Your task to perform on an android device: search for starred emails in the gmail app Image 0: 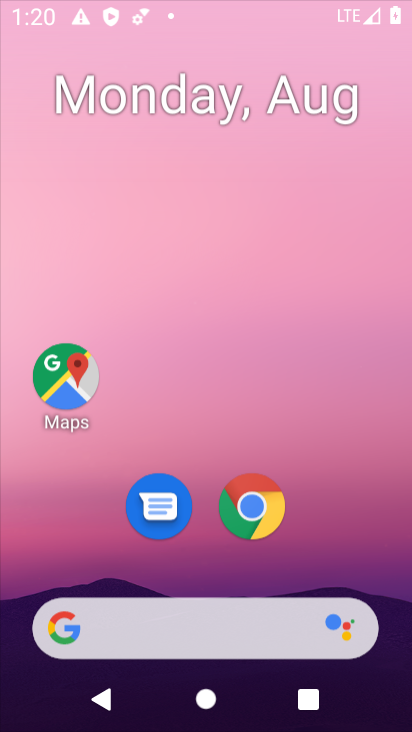
Step 0: press home button
Your task to perform on an android device: search for starred emails in the gmail app Image 1: 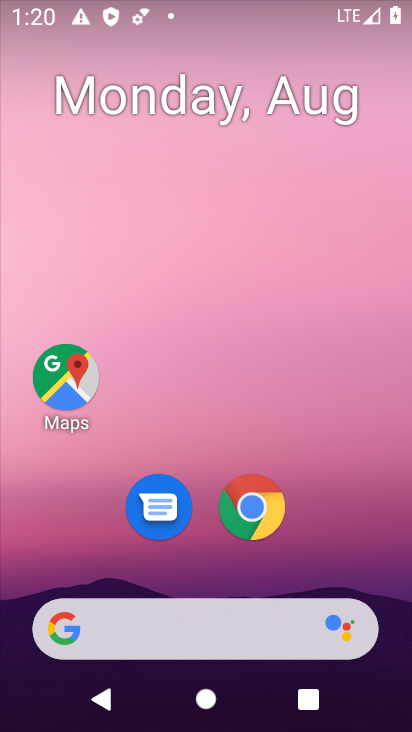
Step 1: click (255, 113)
Your task to perform on an android device: search for starred emails in the gmail app Image 2: 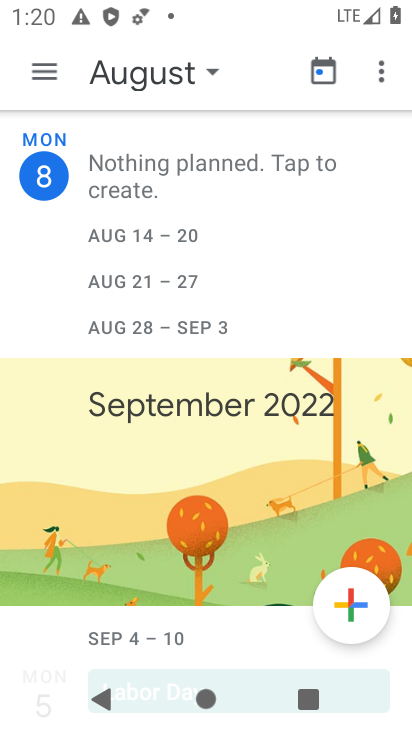
Step 2: press home button
Your task to perform on an android device: search for starred emails in the gmail app Image 3: 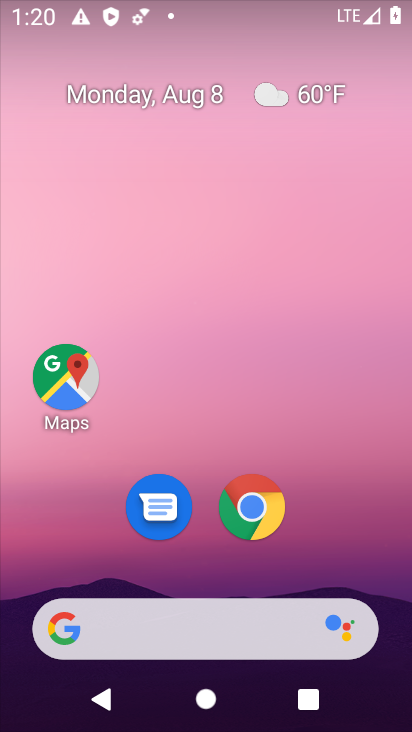
Step 3: drag from (209, 566) to (245, 125)
Your task to perform on an android device: search for starred emails in the gmail app Image 4: 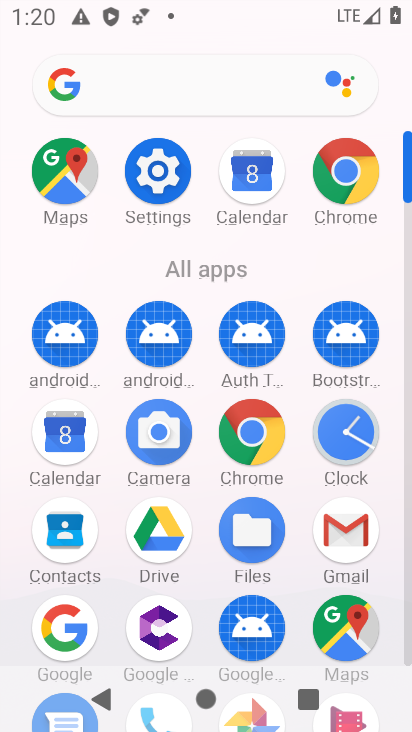
Step 4: click (343, 521)
Your task to perform on an android device: search for starred emails in the gmail app Image 5: 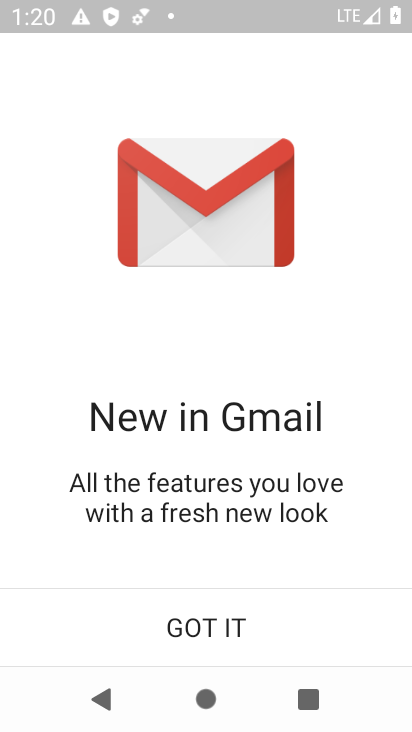
Step 5: click (217, 608)
Your task to perform on an android device: search for starred emails in the gmail app Image 6: 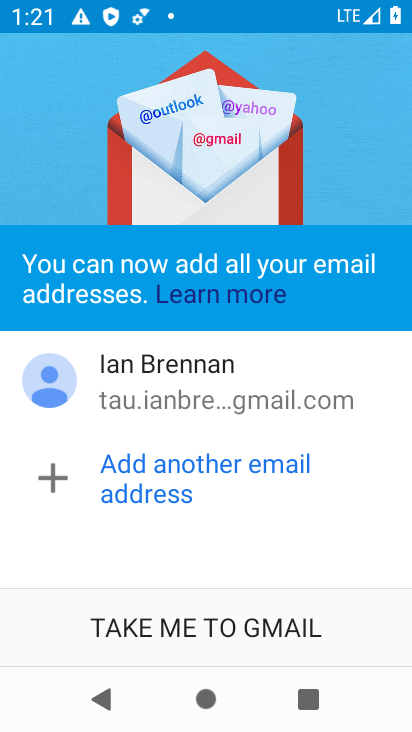
Step 6: click (216, 612)
Your task to perform on an android device: search for starred emails in the gmail app Image 7: 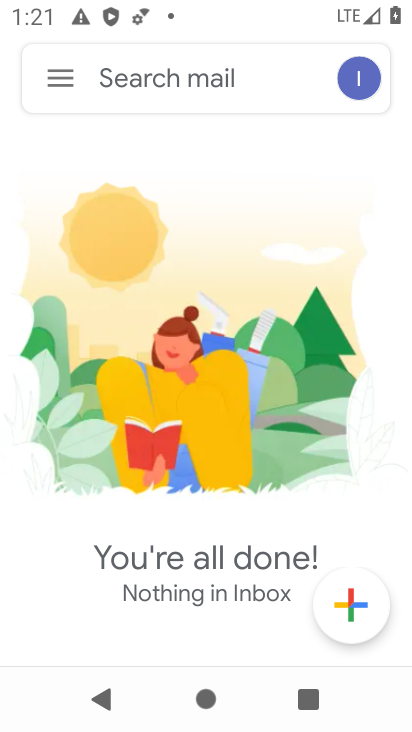
Step 7: click (61, 73)
Your task to perform on an android device: search for starred emails in the gmail app Image 8: 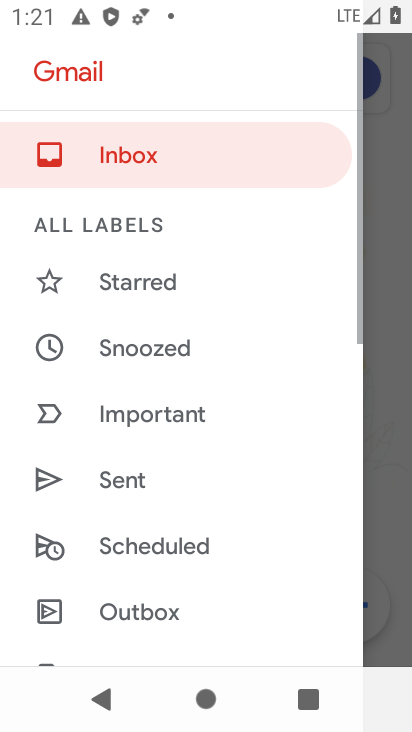
Step 8: click (128, 279)
Your task to perform on an android device: search for starred emails in the gmail app Image 9: 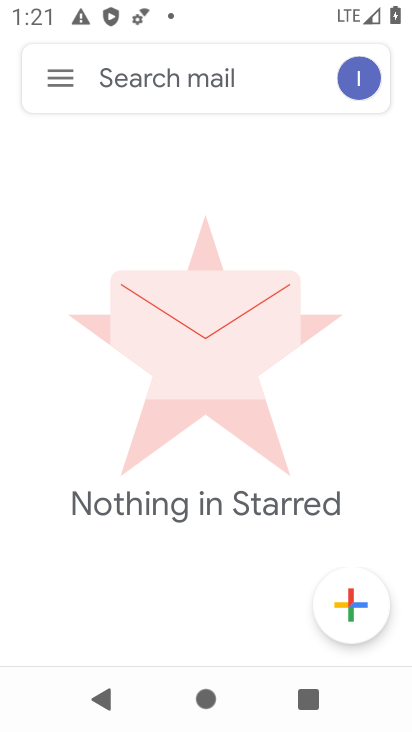
Step 9: task complete